Your task to perform on an android device: What's the weather? Image 0: 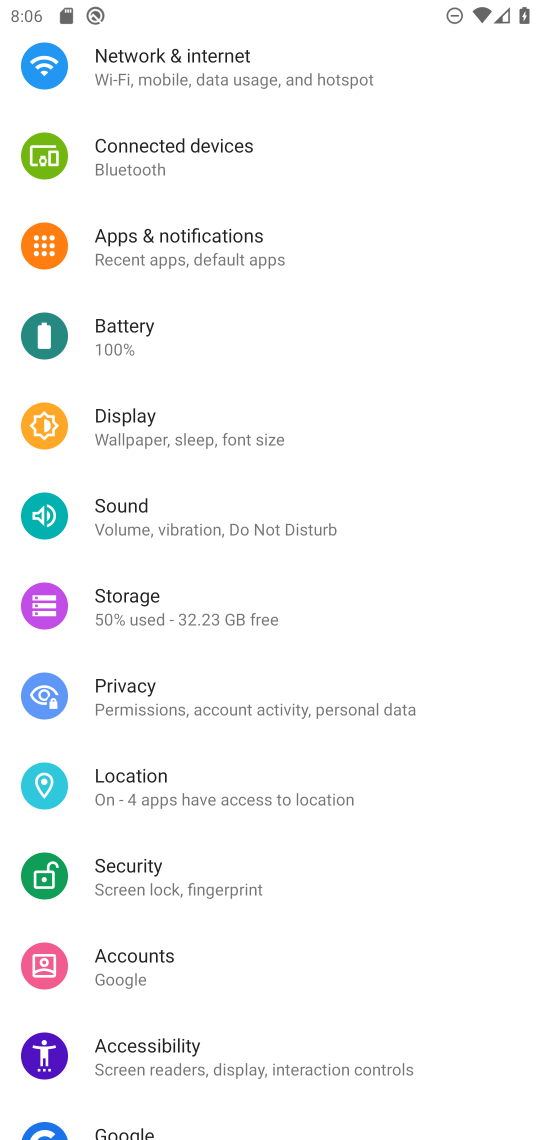
Step 0: press home button
Your task to perform on an android device: What's the weather? Image 1: 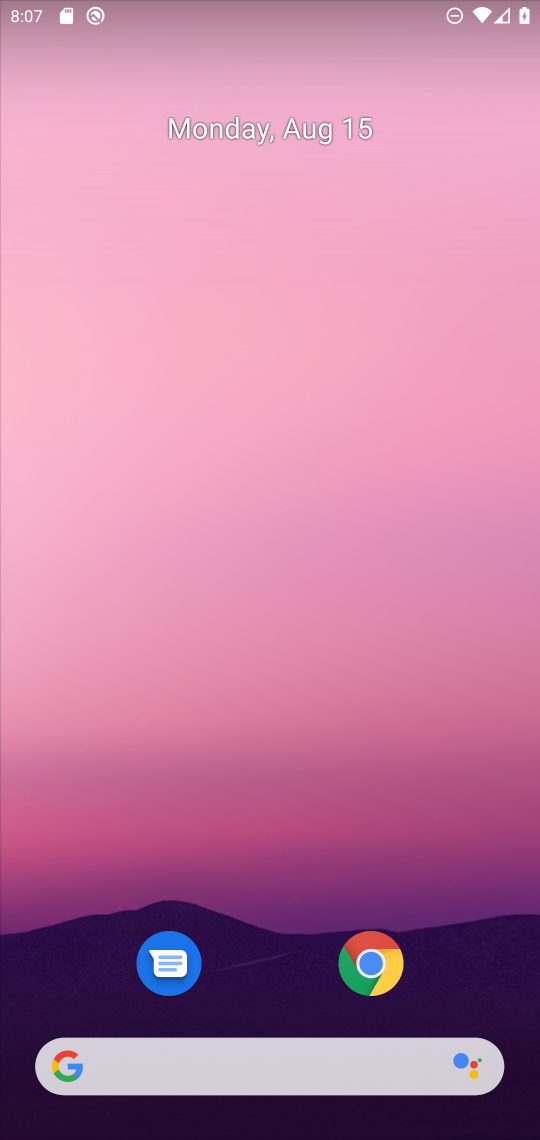
Step 1: click (235, 1070)
Your task to perform on an android device: What's the weather? Image 2: 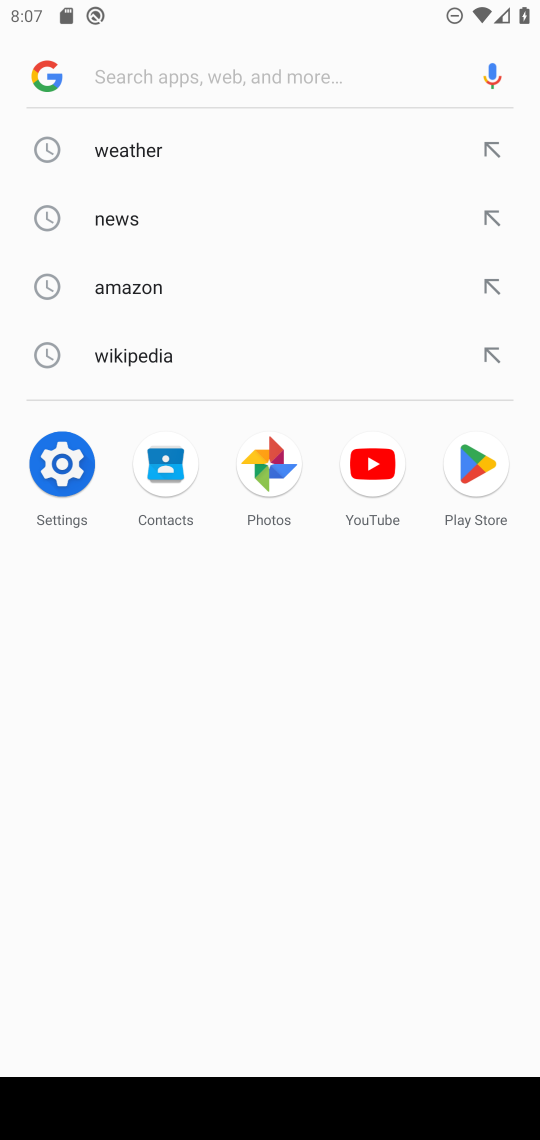
Step 2: click (93, 157)
Your task to perform on an android device: What's the weather? Image 3: 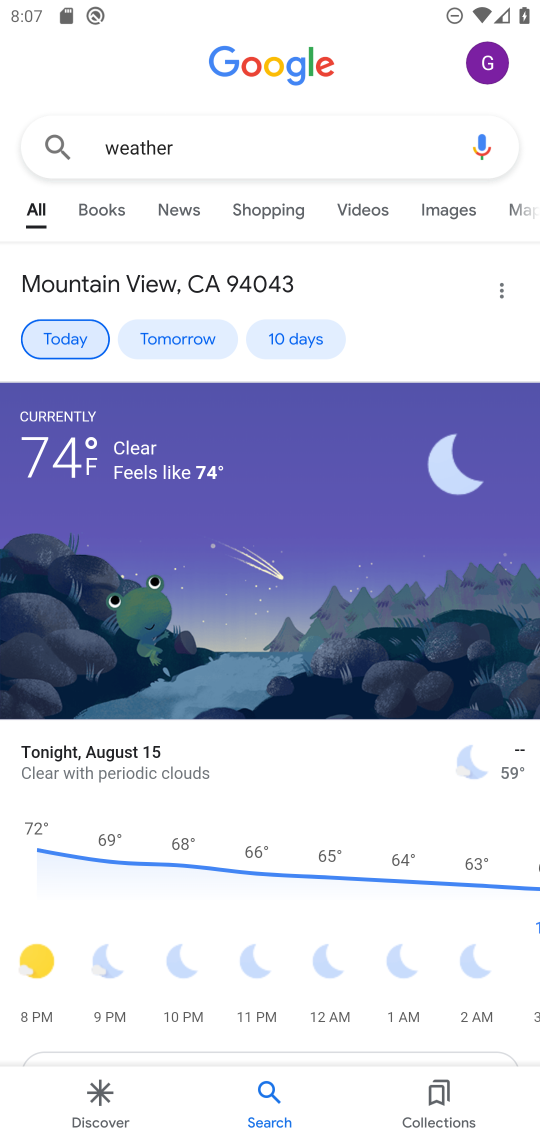
Step 3: task complete